Your task to perform on an android device: Open the map Image 0: 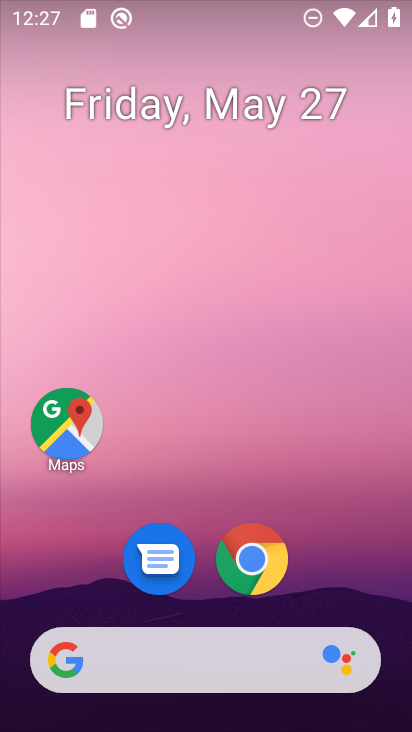
Step 0: click (143, 413)
Your task to perform on an android device: Open the map Image 1: 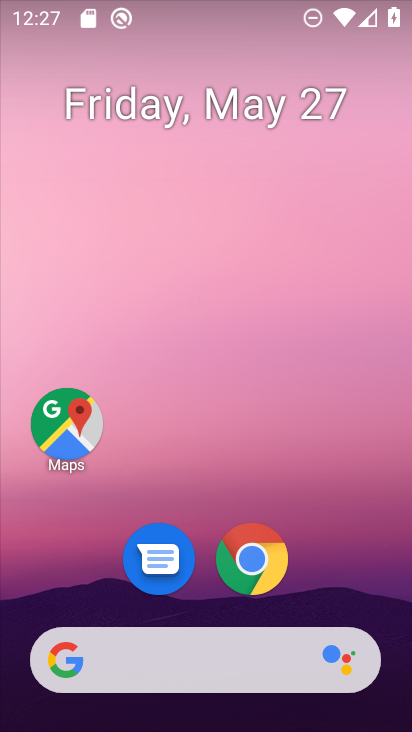
Step 1: click (85, 412)
Your task to perform on an android device: Open the map Image 2: 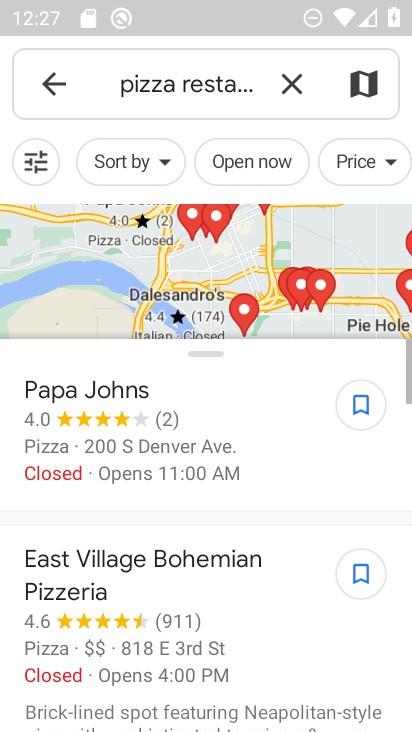
Step 2: task complete